Your task to perform on an android device: uninstall "Fetch Rewards" Image 0: 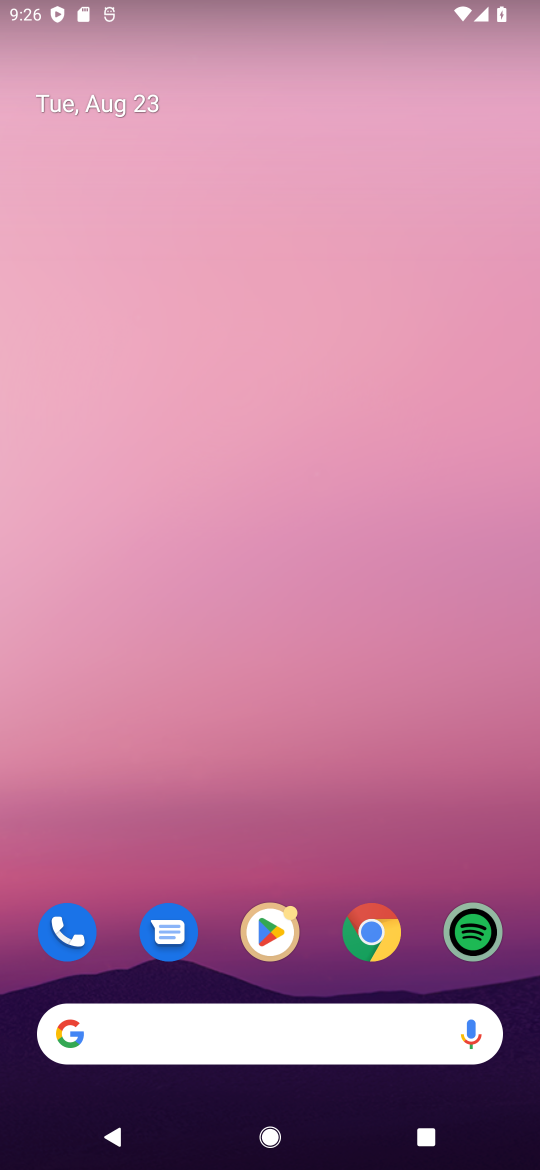
Step 0: click (279, 935)
Your task to perform on an android device: uninstall "Fetch Rewards" Image 1: 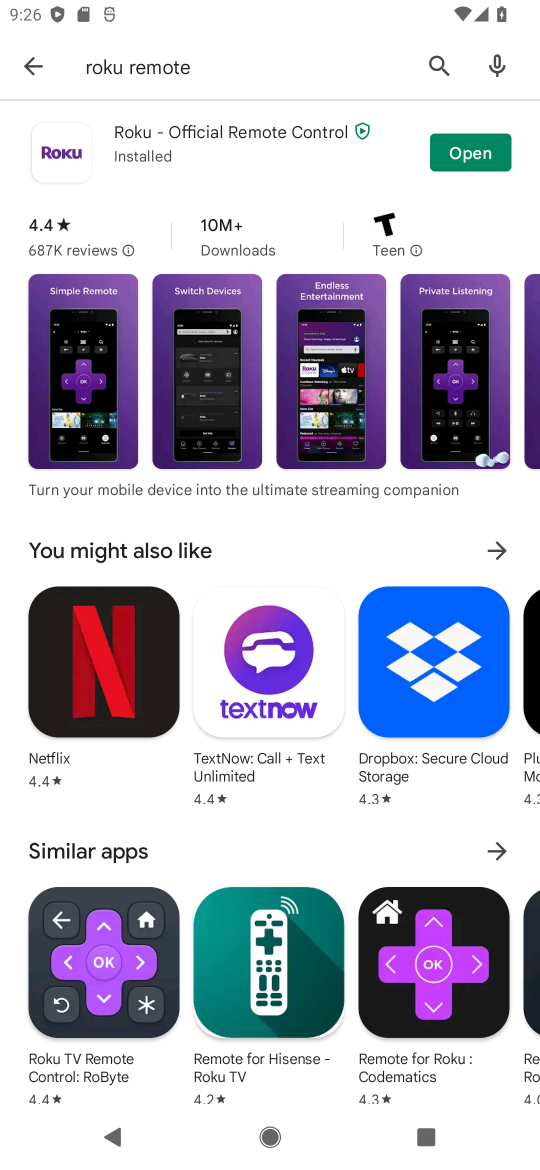
Step 1: click (427, 58)
Your task to perform on an android device: uninstall "Fetch Rewards" Image 2: 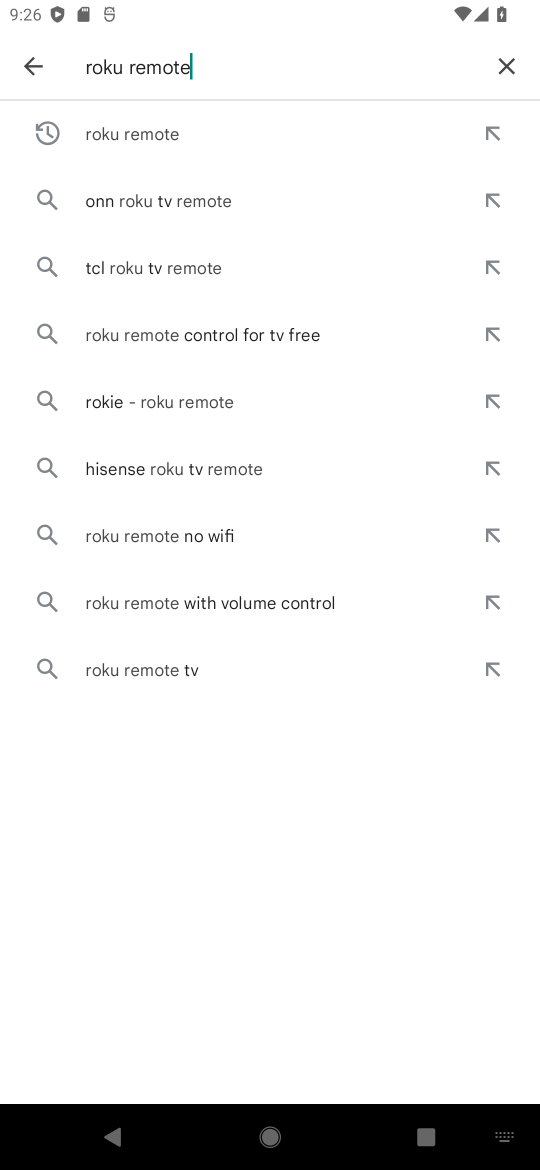
Step 2: click (503, 63)
Your task to perform on an android device: uninstall "Fetch Rewards" Image 3: 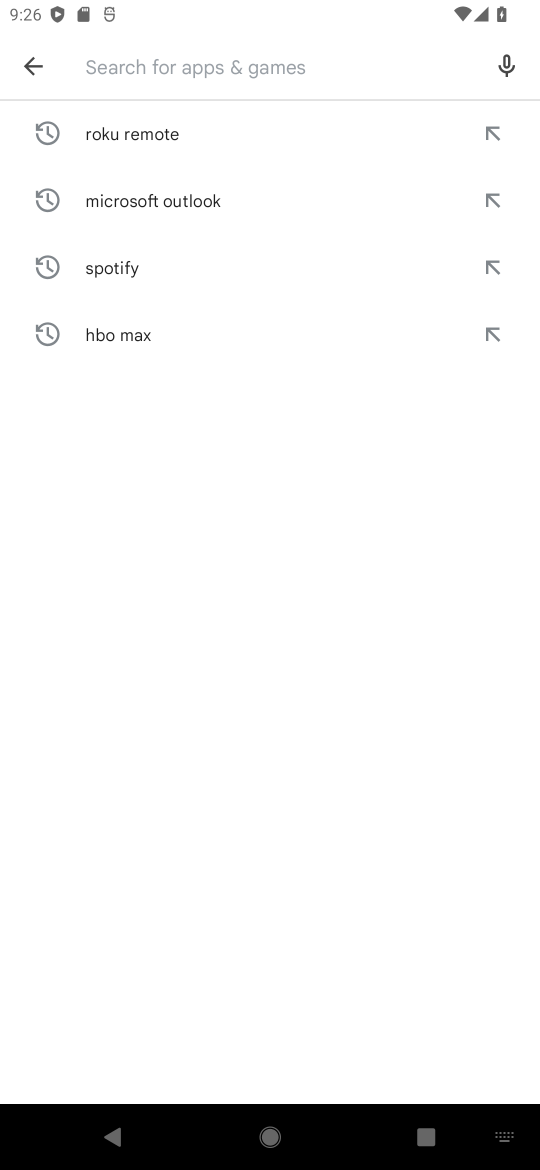
Step 3: click (177, 66)
Your task to perform on an android device: uninstall "Fetch Rewards" Image 4: 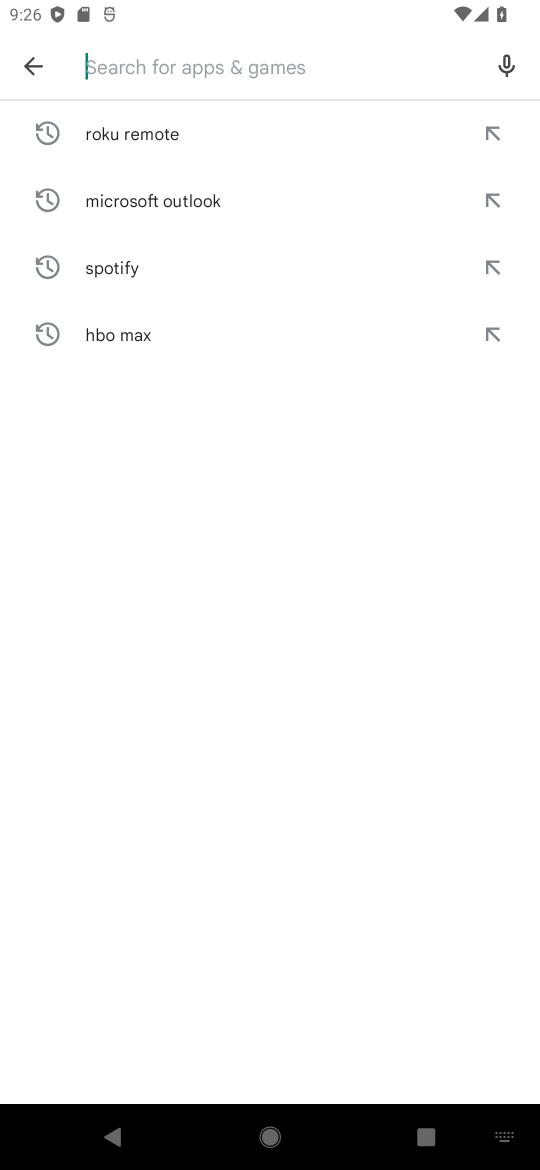
Step 4: click (144, 70)
Your task to perform on an android device: uninstall "Fetch Rewards" Image 5: 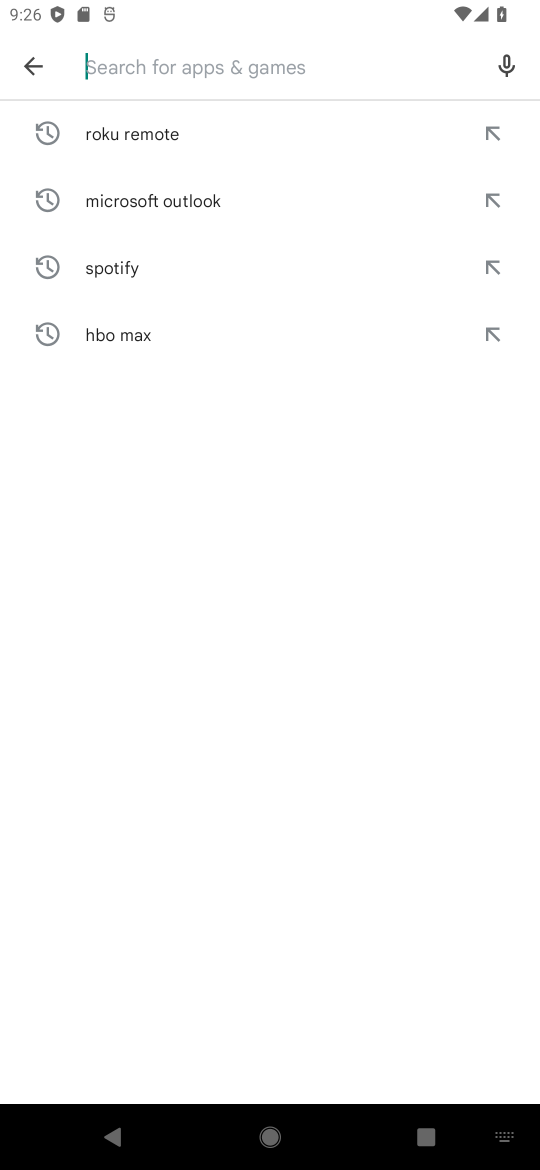
Step 5: type "Fetch Rewards"
Your task to perform on an android device: uninstall "Fetch Rewards" Image 6: 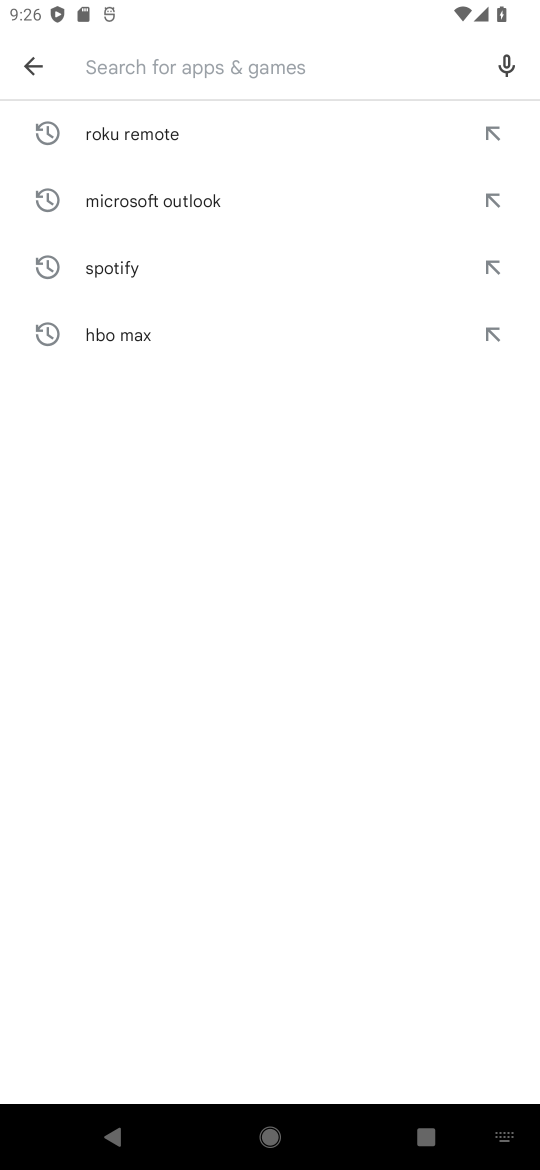
Step 6: click (258, 604)
Your task to perform on an android device: uninstall "Fetch Rewards" Image 7: 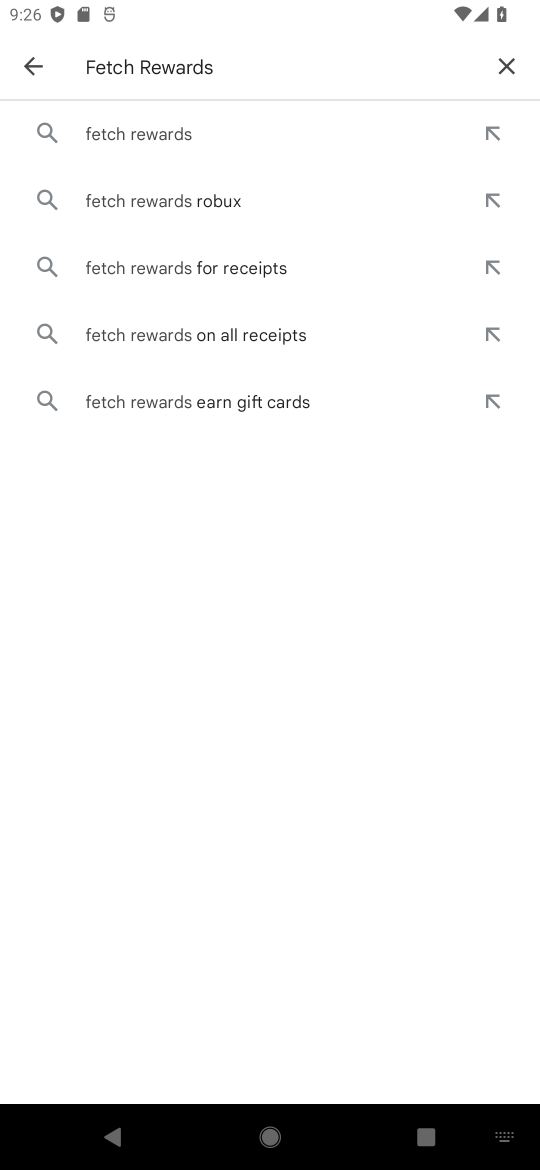
Step 7: click (129, 125)
Your task to perform on an android device: uninstall "Fetch Rewards" Image 8: 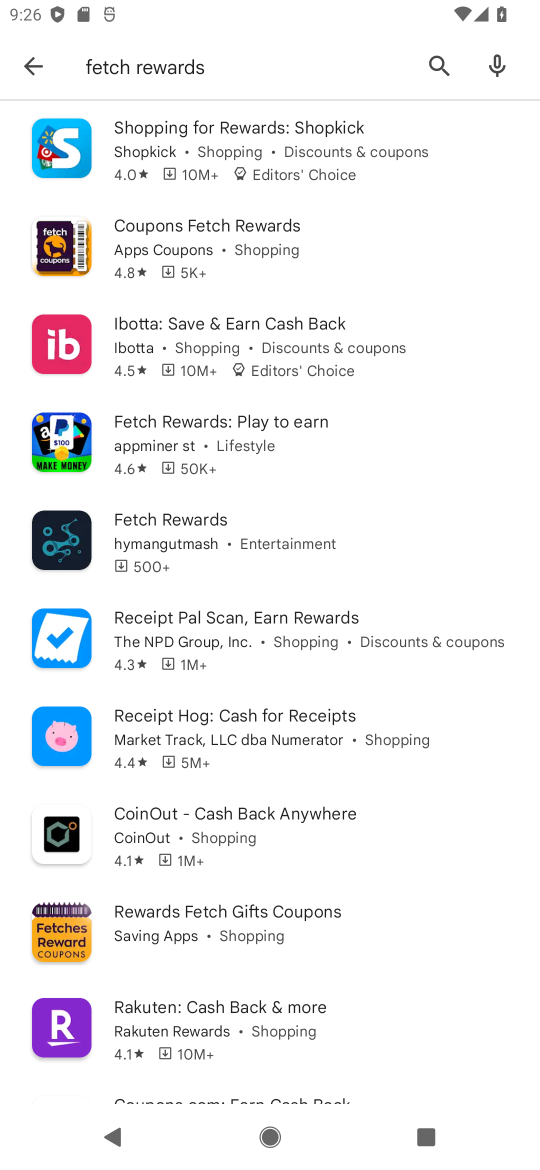
Step 8: task complete